Your task to perform on an android device: open app "VLC for Android" (install if not already installed) Image 0: 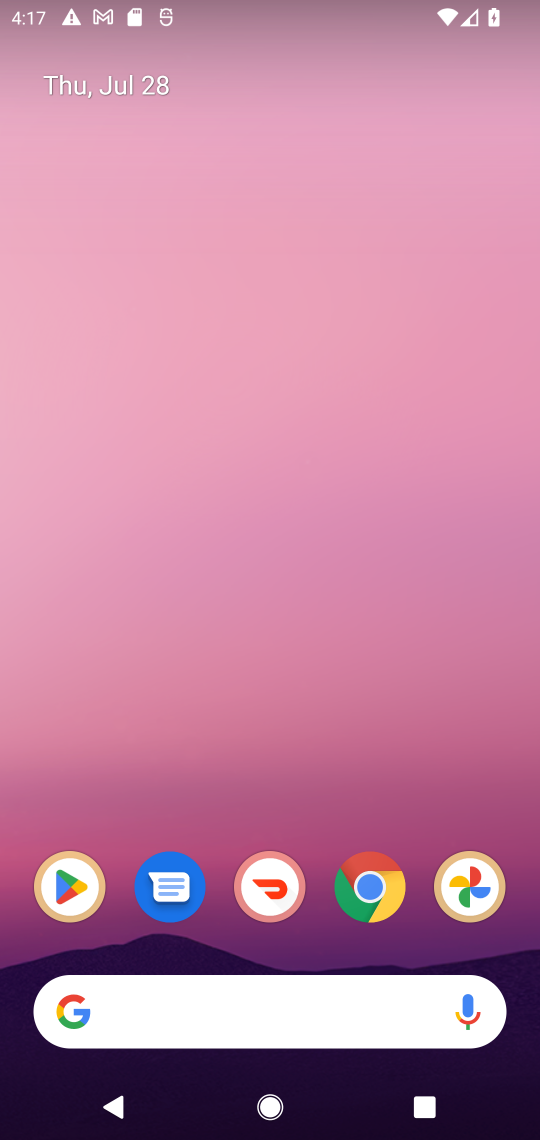
Step 0: click (67, 879)
Your task to perform on an android device: open app "VLC for Android" (install if not already installed) Image 1: 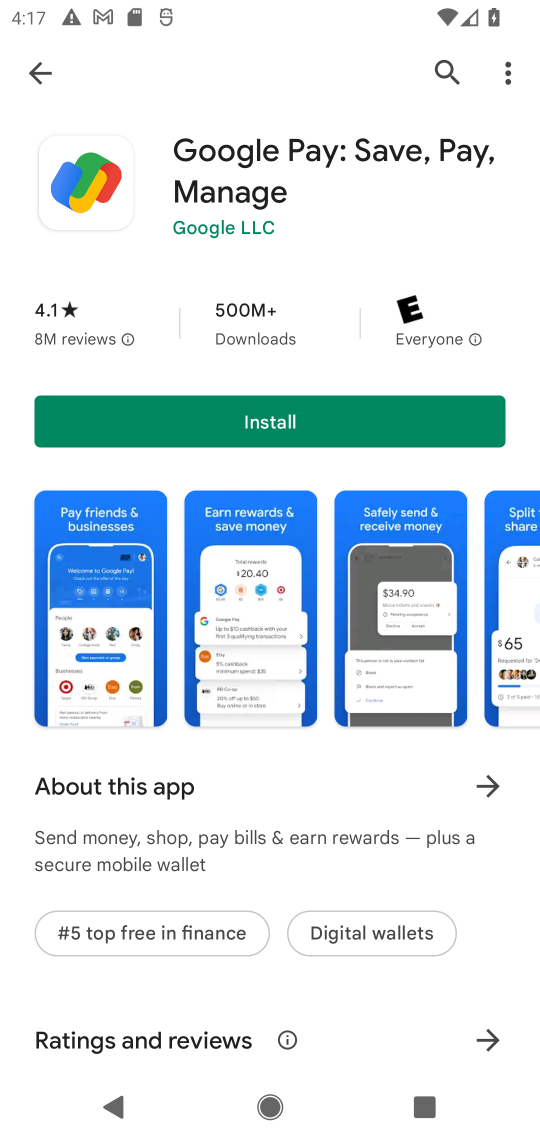
Step 1: click (46, 82)
Your task to perform on an android device: open app "VLC for Android" (install if not already installed) Image 2: 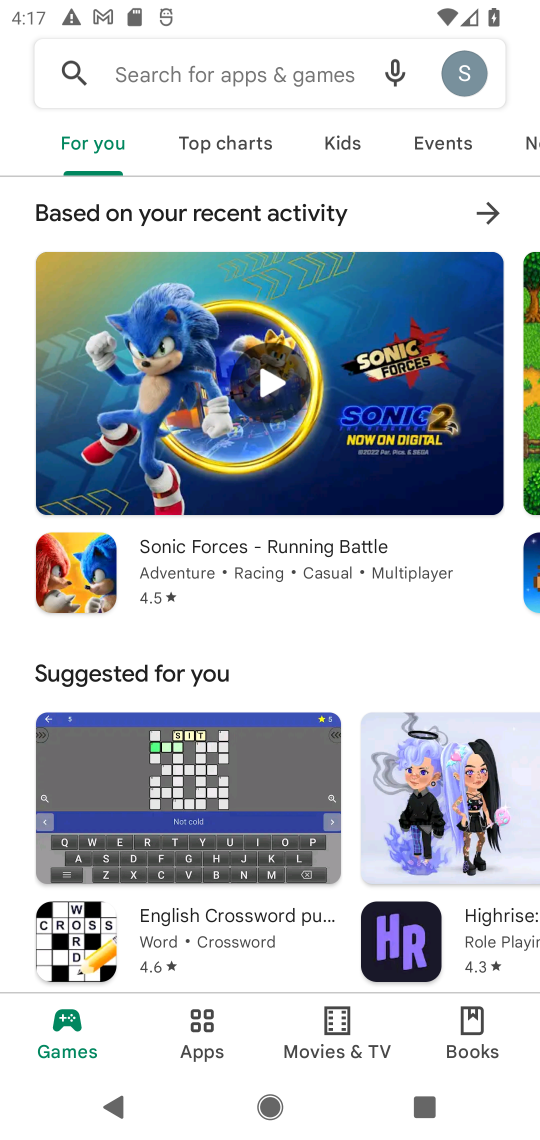
Step 2: click (243, 65)
Your task to perform on an android device: open app "VLC for Android" (install if not already installed) Image 3: 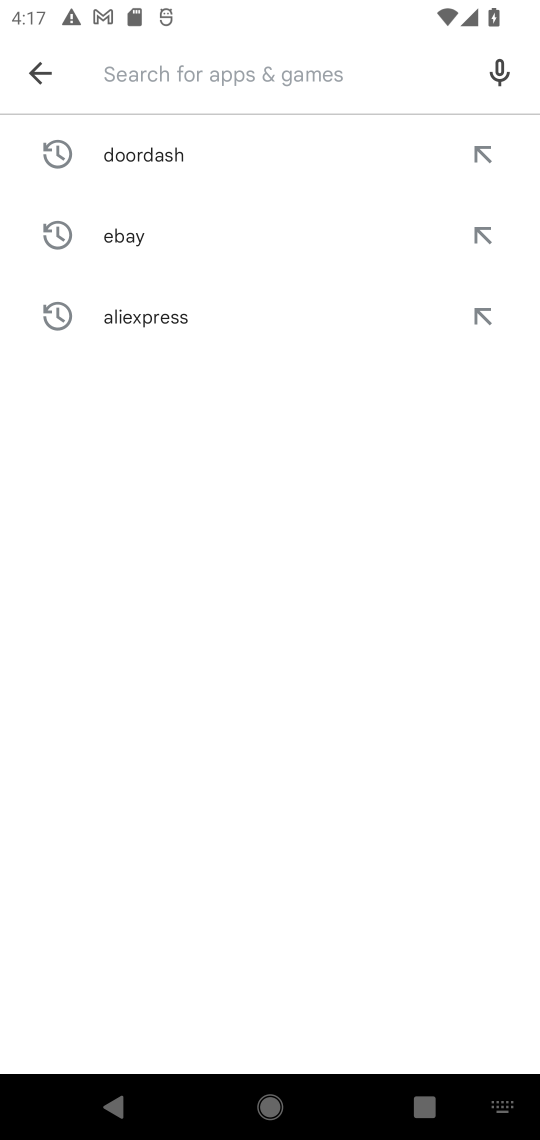
Step 3: type "VLC"
Your task to perform on an android device: open app "VLC for Android" (install if not already installed) Image 4: 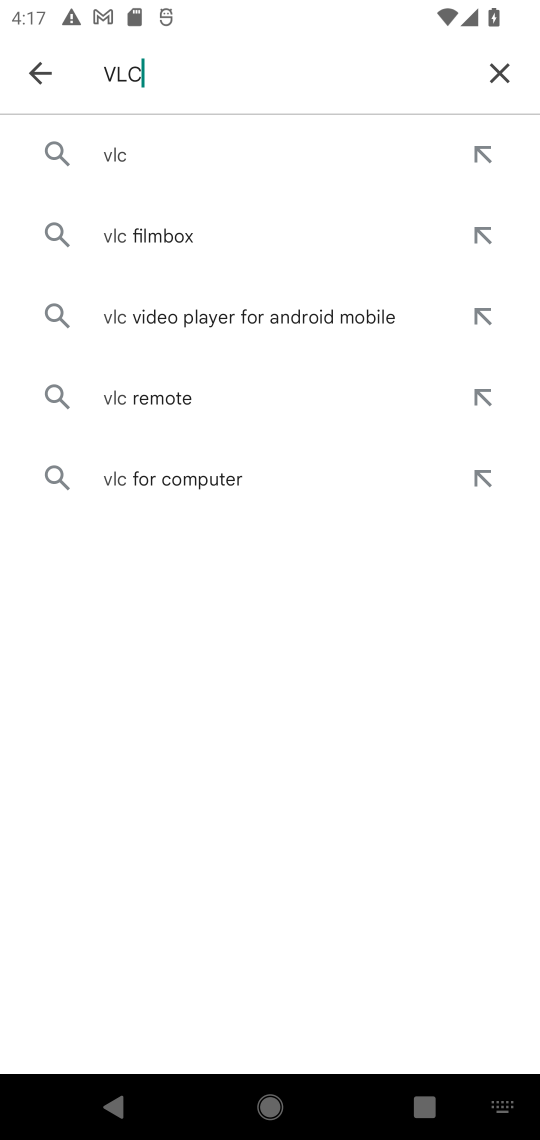
Step 4: click (122, 148)
Your task to perform on an android device: open app "VLC for Android" (install if not already installed) Image 5: 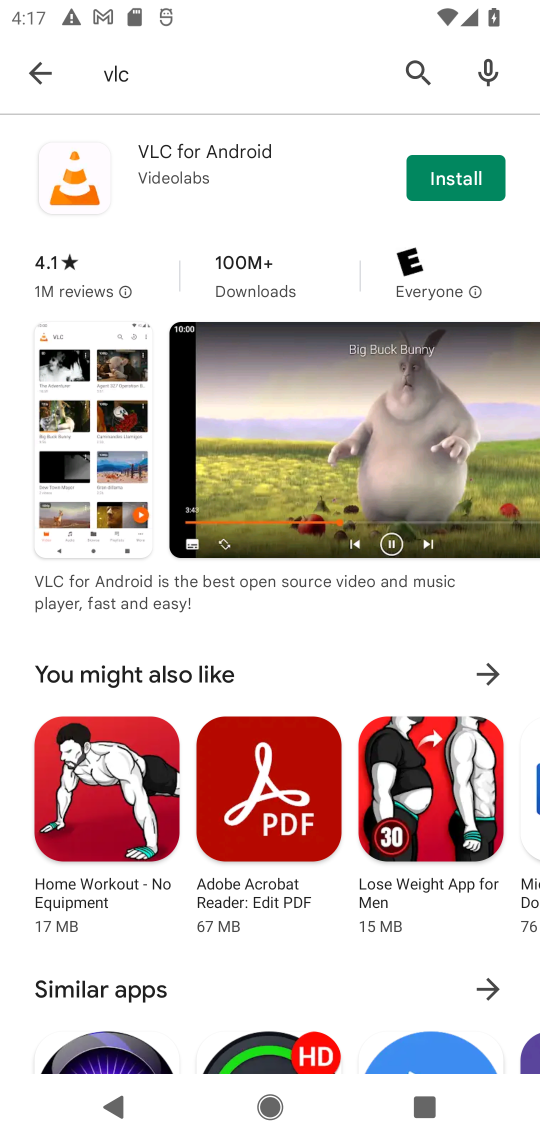
Step 5: click (456, 164)
Your task to perform on an android device: open app "VLC for Android" (install if not already installed) Image 6: 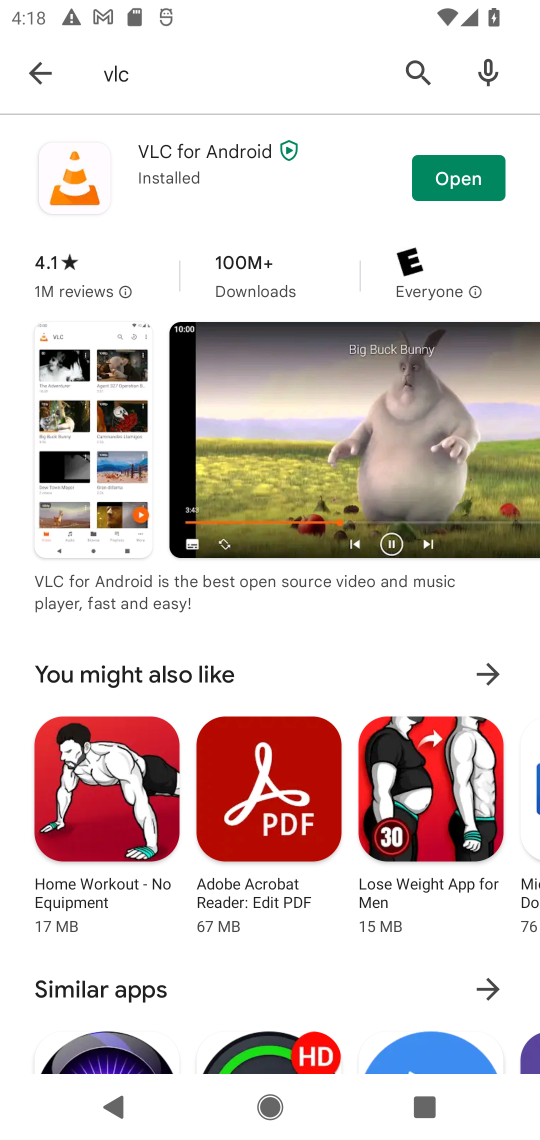
Step 6: click (445, 171)
Your task to perform on an android device: open app "VLC for Android" (install if not already installed) Image 7: 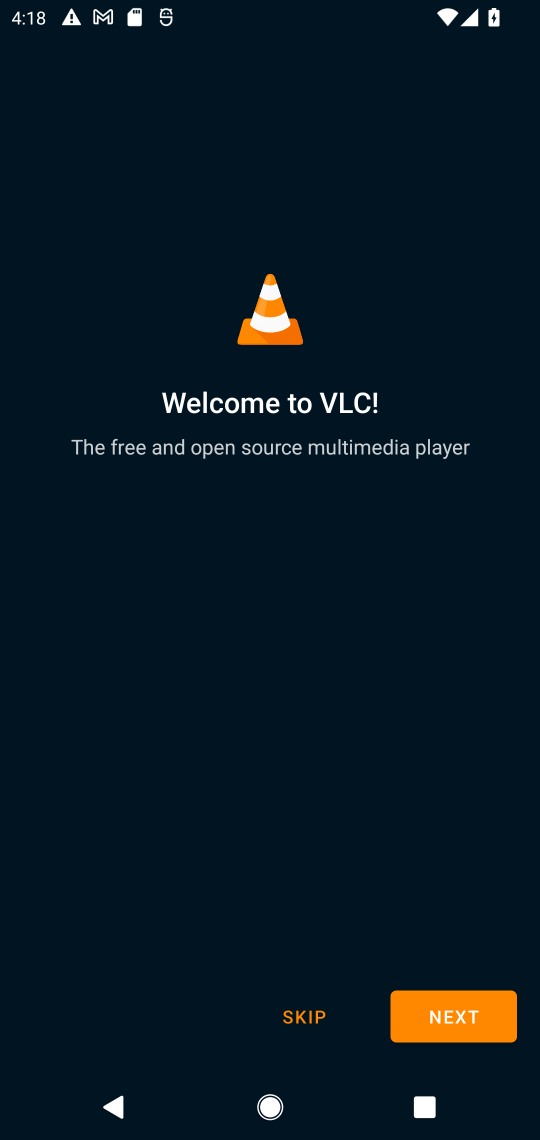
Step 7: click (286, 1013)
Your task to perform on an android device: open app "VLC for Android" (install if not already installed) Image 8: 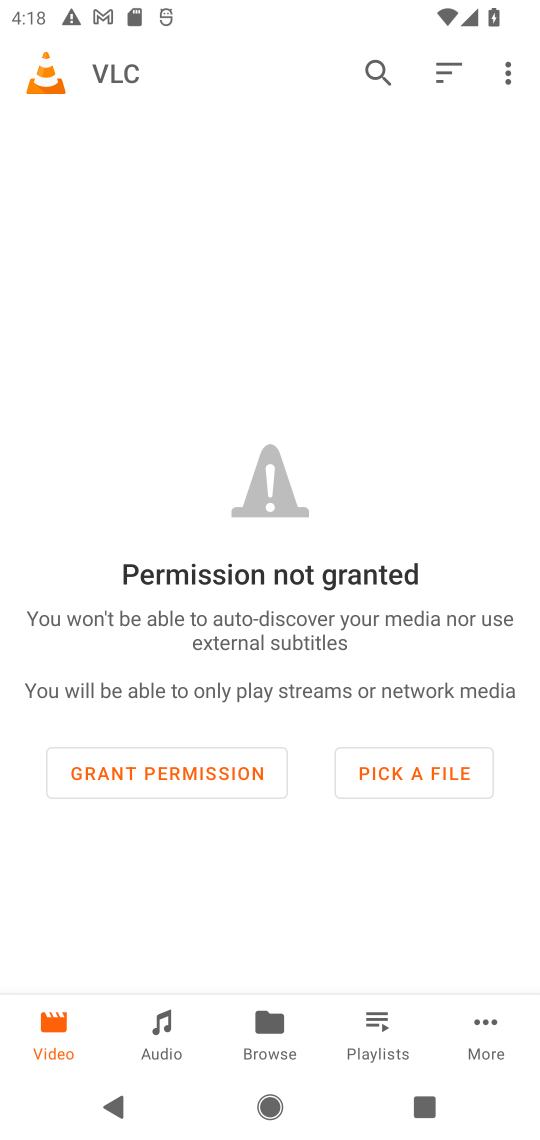
Step 8: task complete